Your task to perform on an android device: turn on sleep mode Image 0: 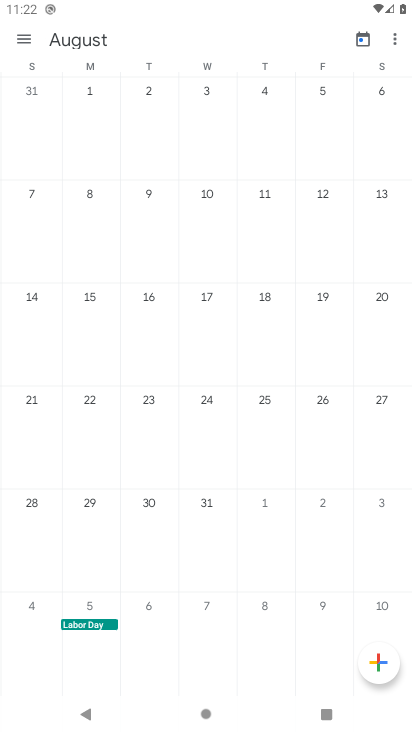
Step 0: press home button
Your task to perform on an android device: turn on sleep mode Image 1: 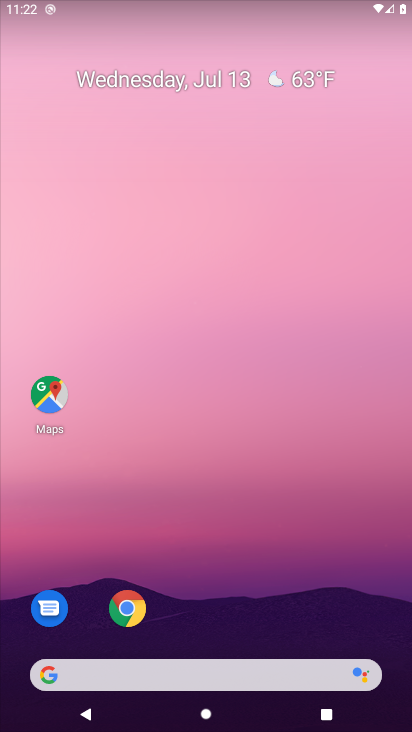
Step 1: drag from (268, 582) to (266, 61)
Your task to perform on an android device: turn on sleep mode Image 2: 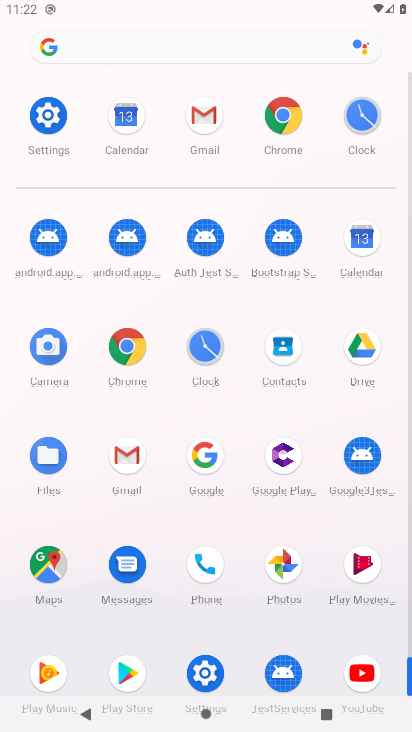
Step 2: click (47, 123)
Your task to perform on an android device: turn on sleep mode Image 3: 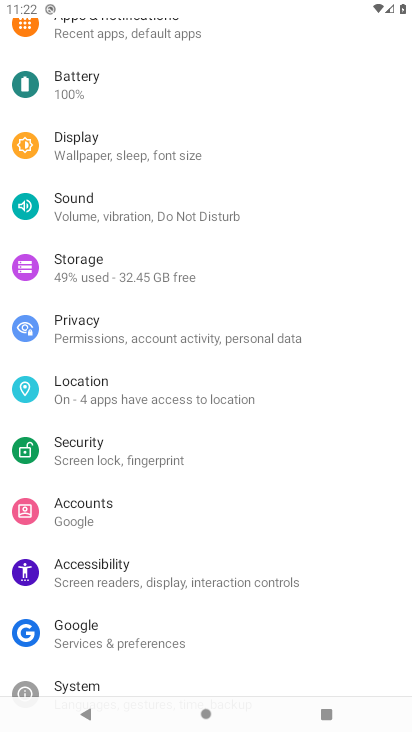
Step 3: click (122, 156)
Your task to perform on an android device: turn on sleep mode Image 4: 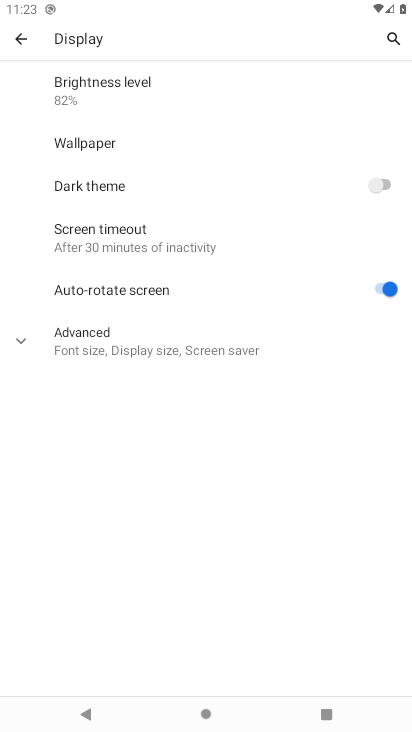
Step 4: task complete